Your task to perform on an android device: change text size in settings app Image 0: 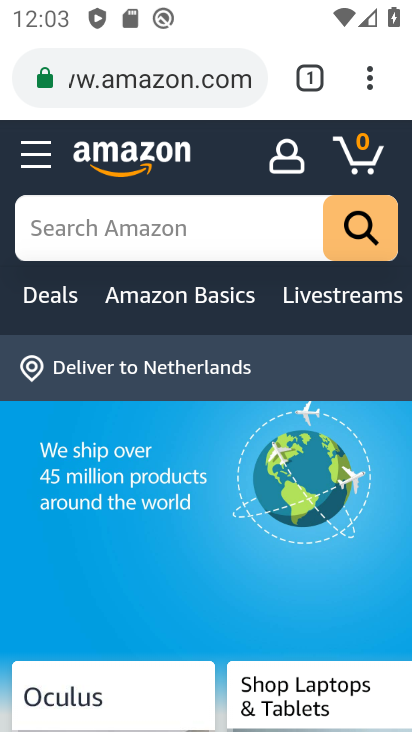
Step 0: press home button
Your task to perform on an android device: change text size in settings app Image 1: 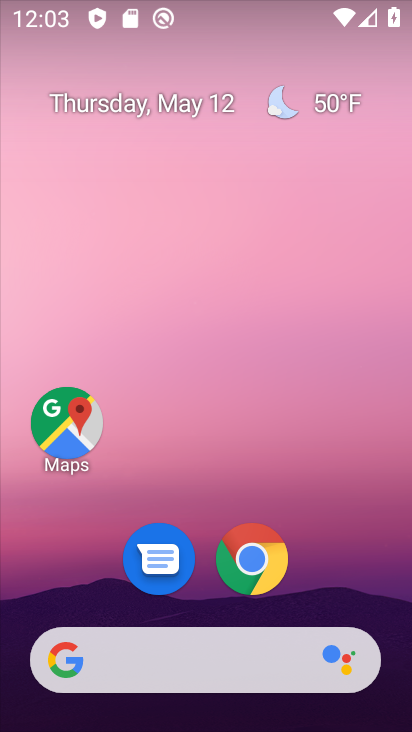
Step 1: drag from (330, 608) to (328, 234)
Your task to perform on an android device: change text size in settings app Image 2: 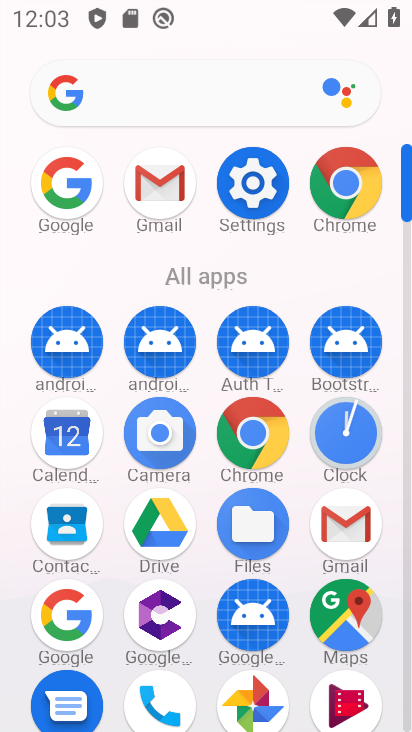
Step 2: click (252, 187)
Your task to perform on an android device: change text size in settings app Image 3: 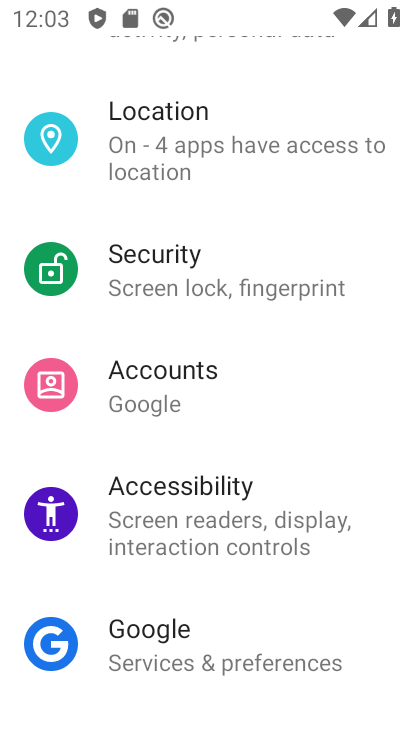
Step 3: drag from (200, 596) to (250, 307)
Your task to perform on an android device: change text size in settings app Image 4: 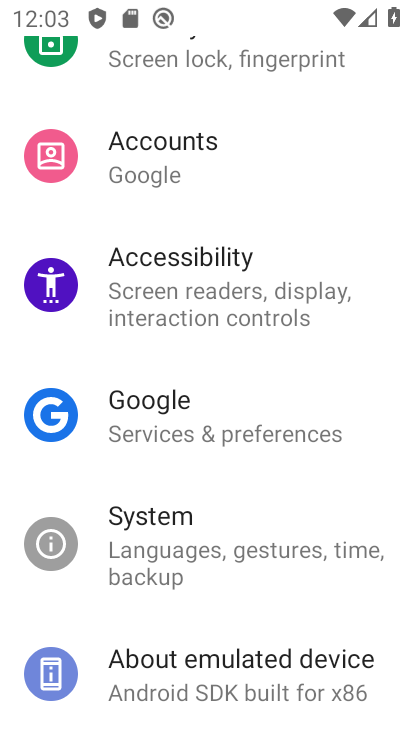
Step 4: click (226, 648)
Your task to perform on an android device: change text size in settings app Image 5: 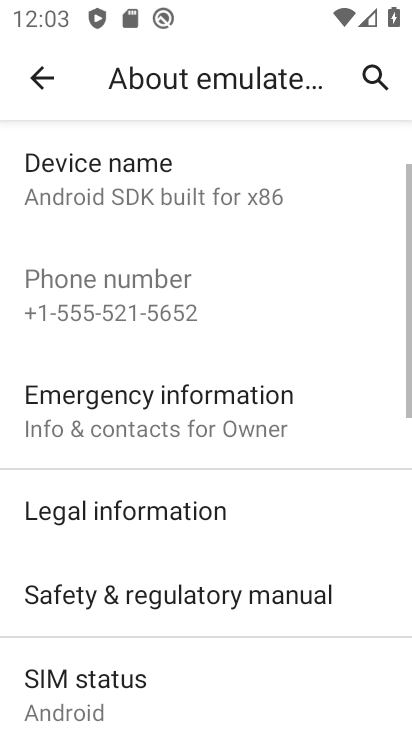
Step 5: click (31, 84)
Your task to perform on an android device: change text size in settings app Image 6: 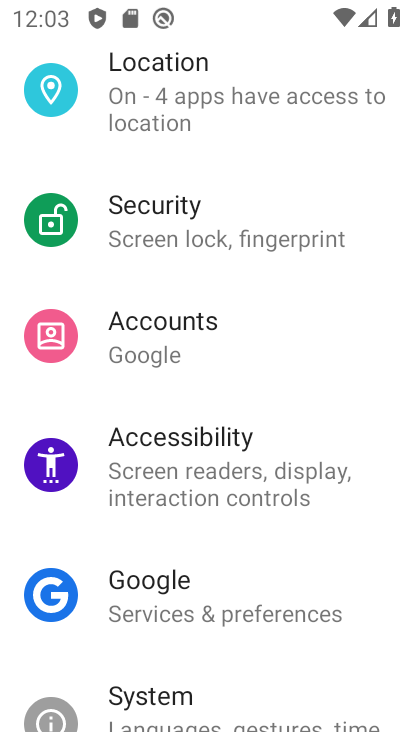
Step 6: drag from (197, 329) to (176, 594)
Your task to perform on an android device: change text size in settings app Image 7: 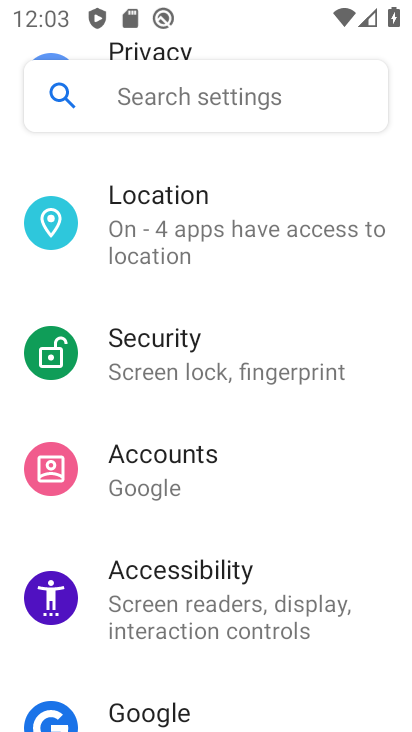
Step 7: drag from (256, 305) to (199, 717)
Your task to perform on an android device: change text size in settings app Image 8: 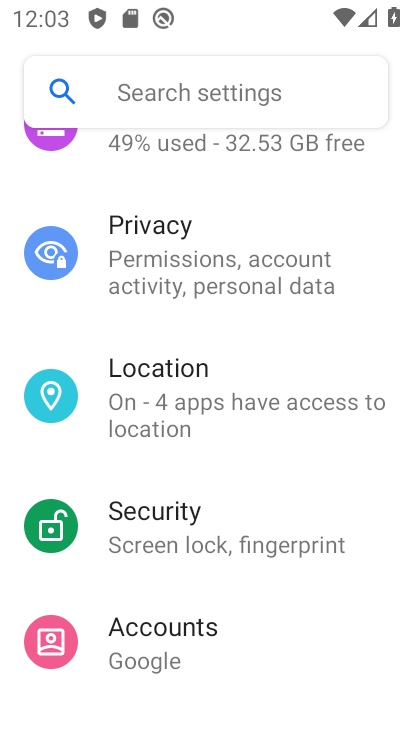
Step 8: drag from (246, 296) to (184, 730)
Your task to perform on an android device: change text size in settings app Image 9: 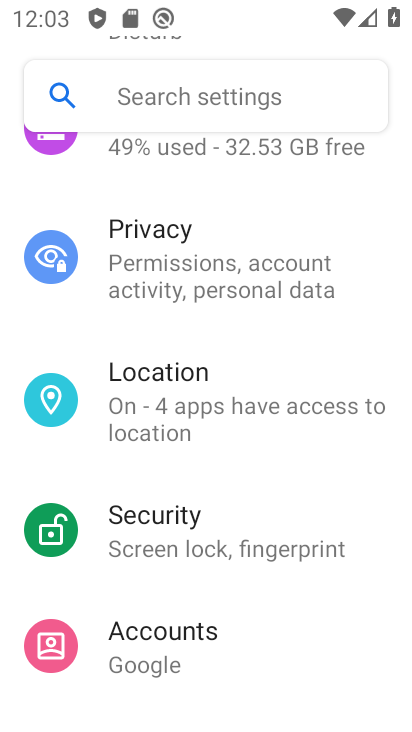
Step 9: drag from (271, 357) to (228, 728)
Your task to perform on an android device: change text size in settings app Image 10: 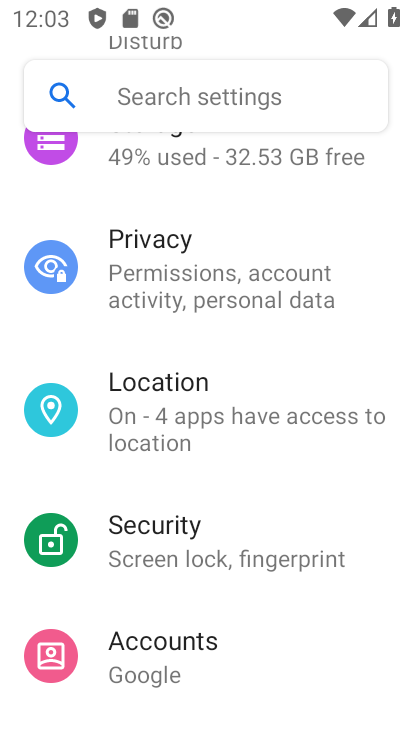
Step 10: drag from (233, 374) to (183, 727)
Your task to perform on an android device: change text size in settings app Image 11: 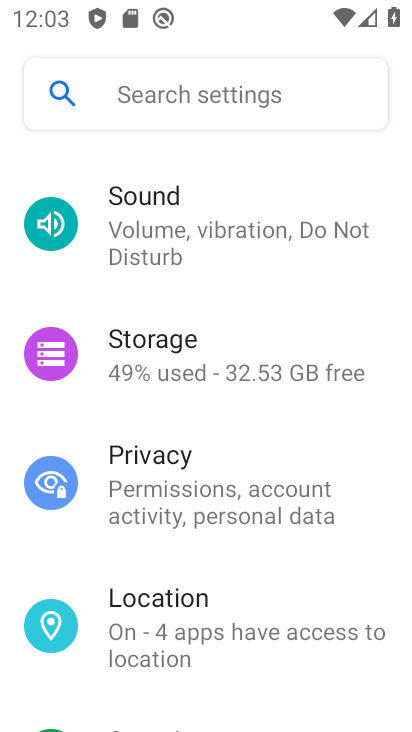
Step 11: drag from (262, 307) to (241, 728)
Your task to perform on an android device: change text size in settings app Image 12: 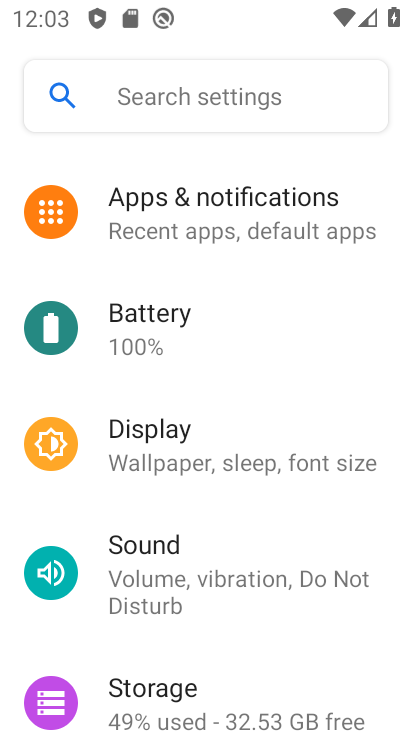
Step 12: drag from (295, 322) to (244, 685)
Your task to perform on an android device: change text size in settings app Image 13: 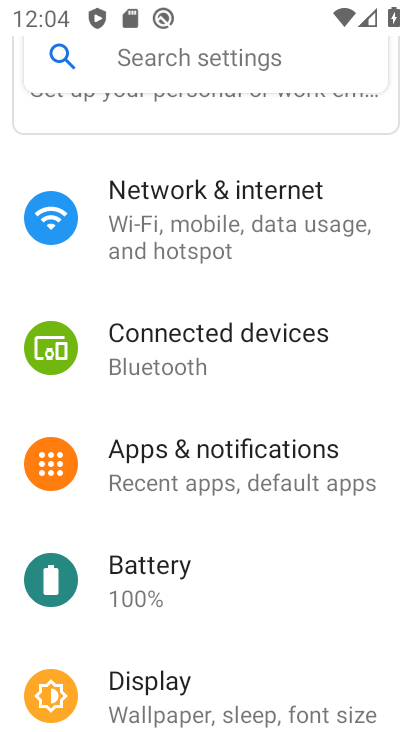
Step 13: drag from (204, 602) to (252, 503)
Your task to perform on an android device: change text size in settings app Image 14: 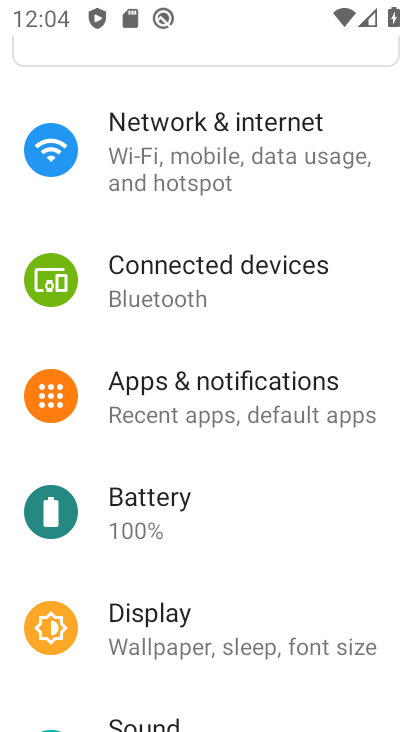
Step 14: click (160, 637)
Your task to perform on an android device: change text size in settings app Image 15: 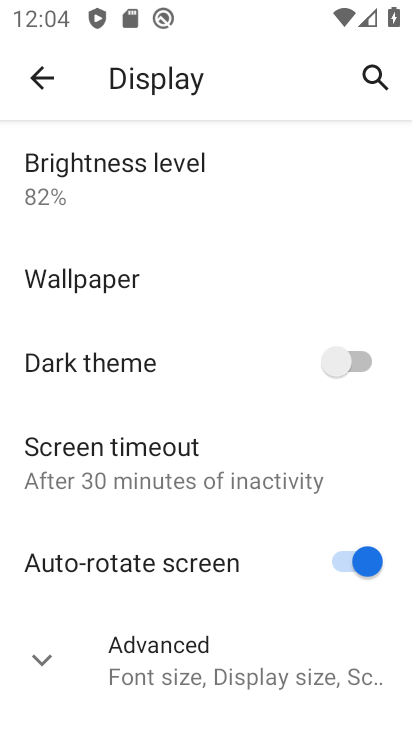
Step 15: drag from (183, 639) to (239, 316)
Your task to perform on an android device: change text size in settings app Image 16: 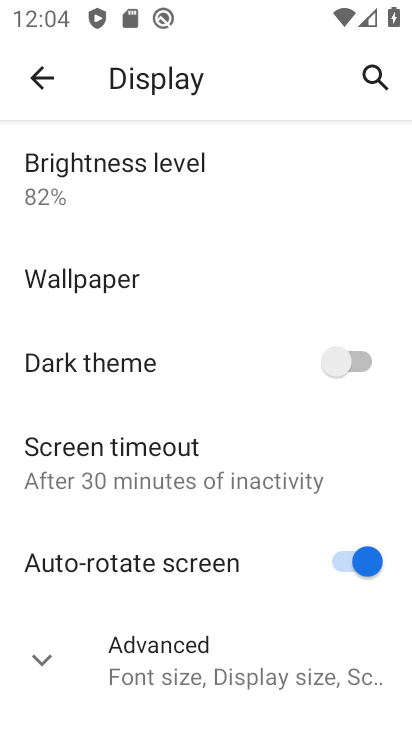
Step 16: click (159, 679)
Your task to perform on an android device: change text size in settings app Image 17: 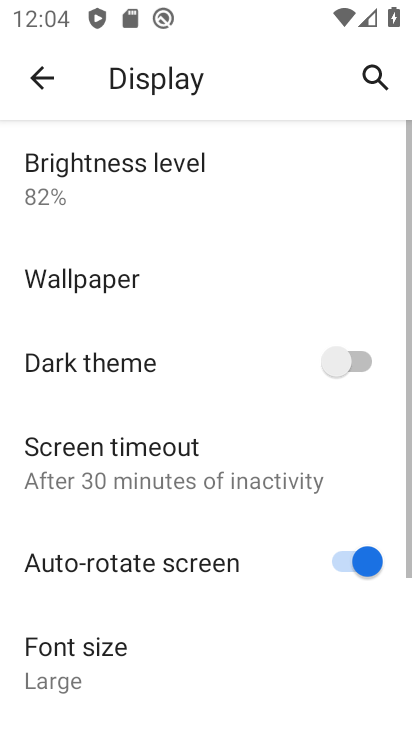
Step 17: drag from (159, 679) to (178, 386)
Your task to perform on an android device: change text size in settings app Image 18: 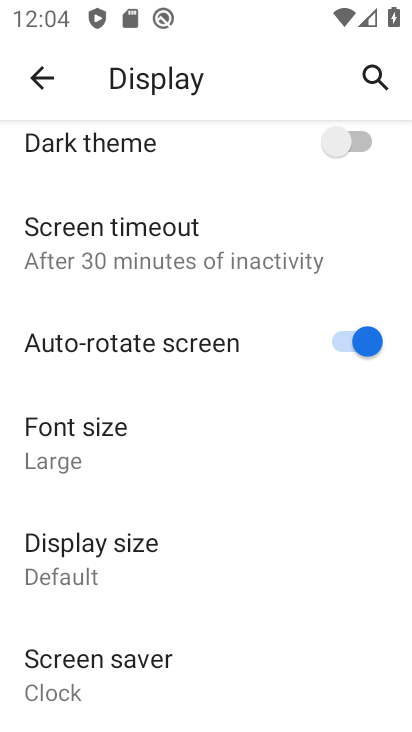
Step 18: click (96, 453)
Your task to perform on an android device: change text size in settings app Image 19: 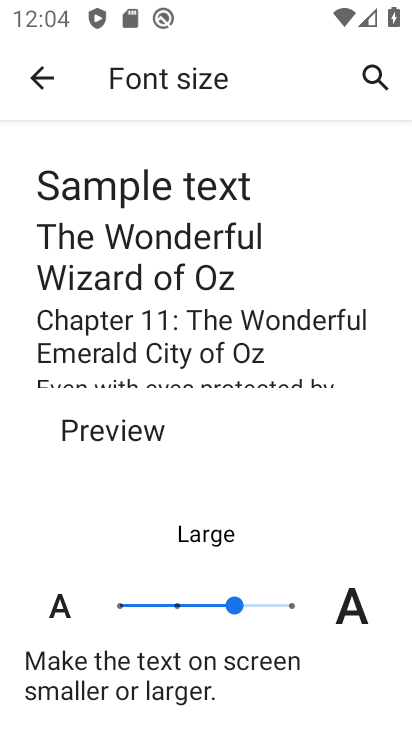
Step 19: click (180, 613)
Your task to perform on an android device: change text size in settings app Image 20: 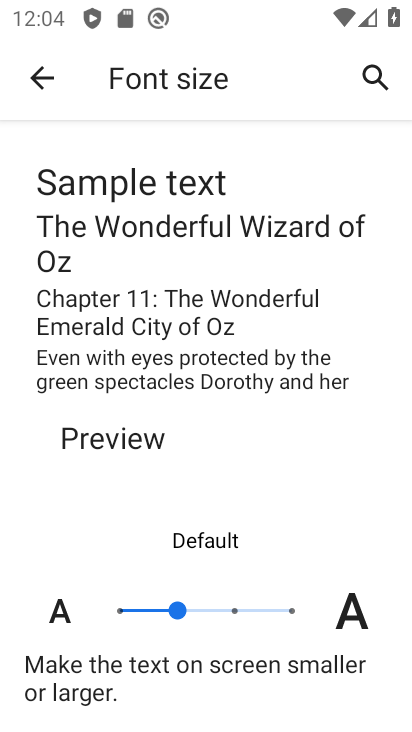
Step 20: task complete